Your task to perform on an android device: Is it going to rain today? Image 0: 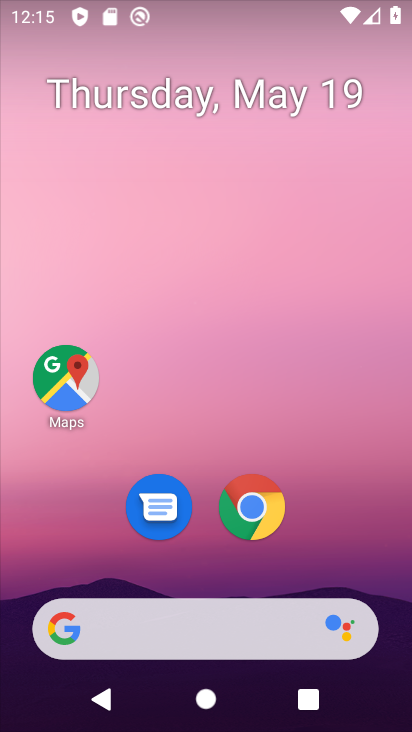
Step 0: click (203, 634)
Your task to perform on an android device: Is it going to rain today? Image 1: 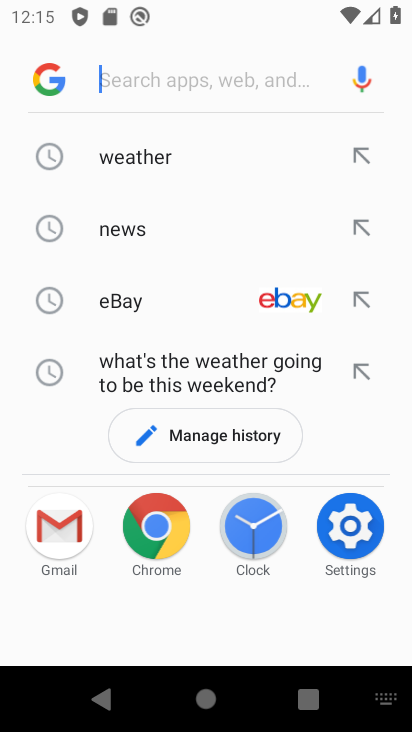
Step 1: click (162, 155)
Your task to perform on an android device: Is it going to rain today? Image 2: 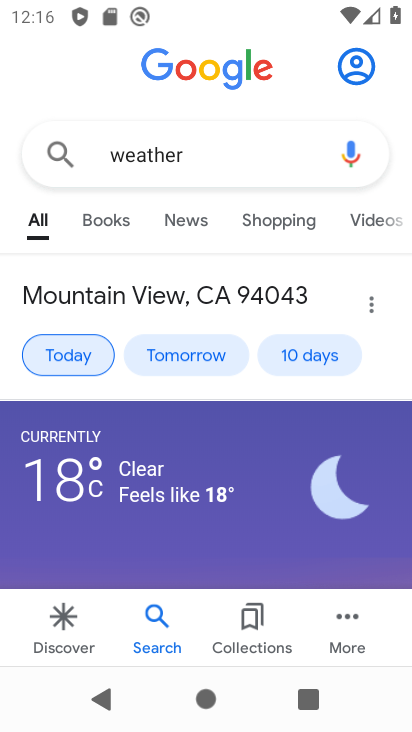
Step 2: task complete